Your task to perform on an android device: Do I have any events tomorrow? Image 0: 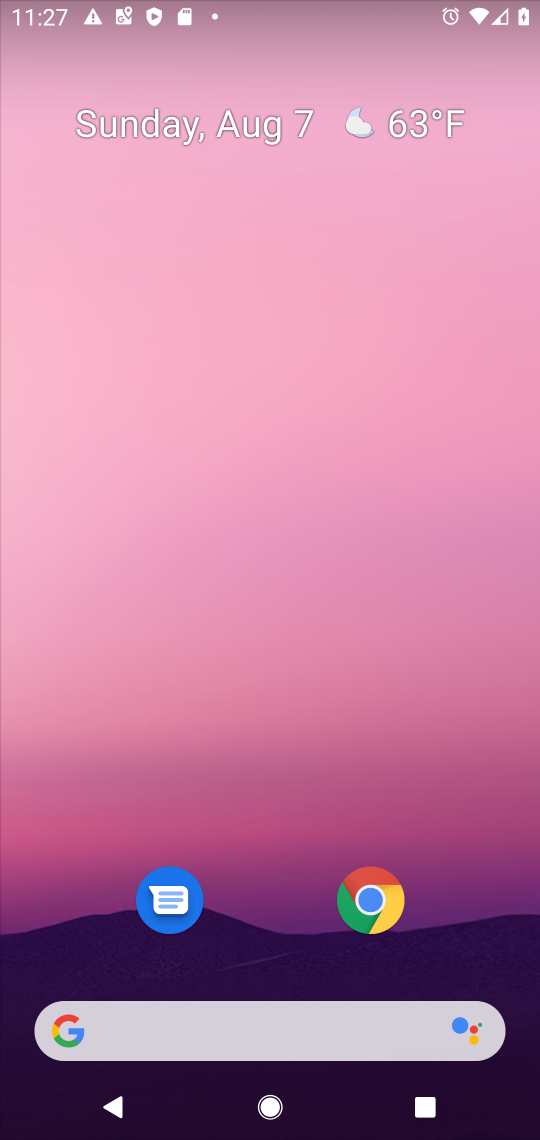
Step 0: press home button
Your task to perform on an android device: Do I have any events tomorrow? Image 1: 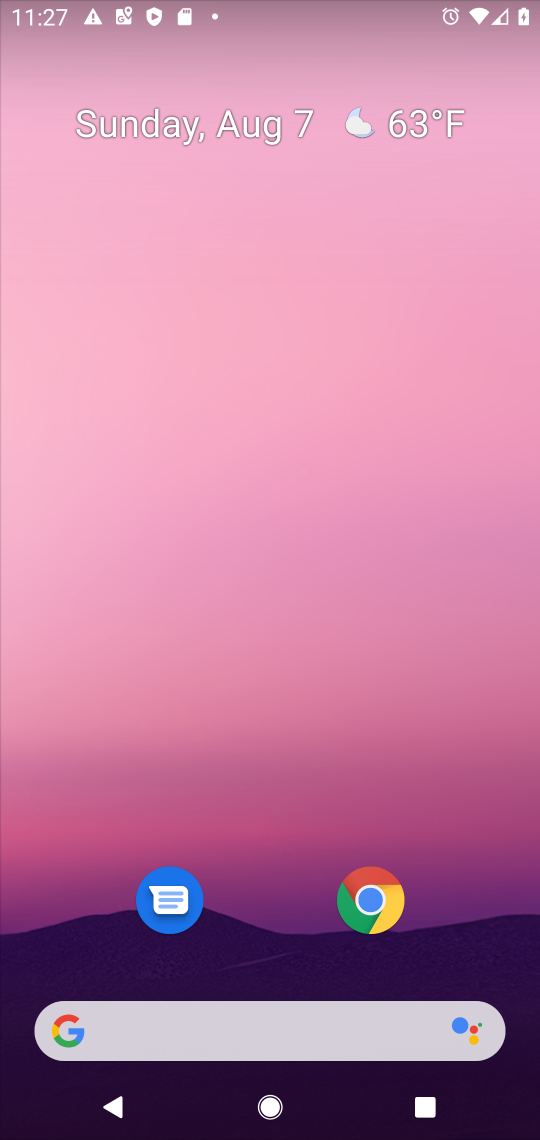
Step 1: drag from (270, 970) to (253, 268)
Your task to perform on an android device: Do I have any events tomorrow? Image 2: 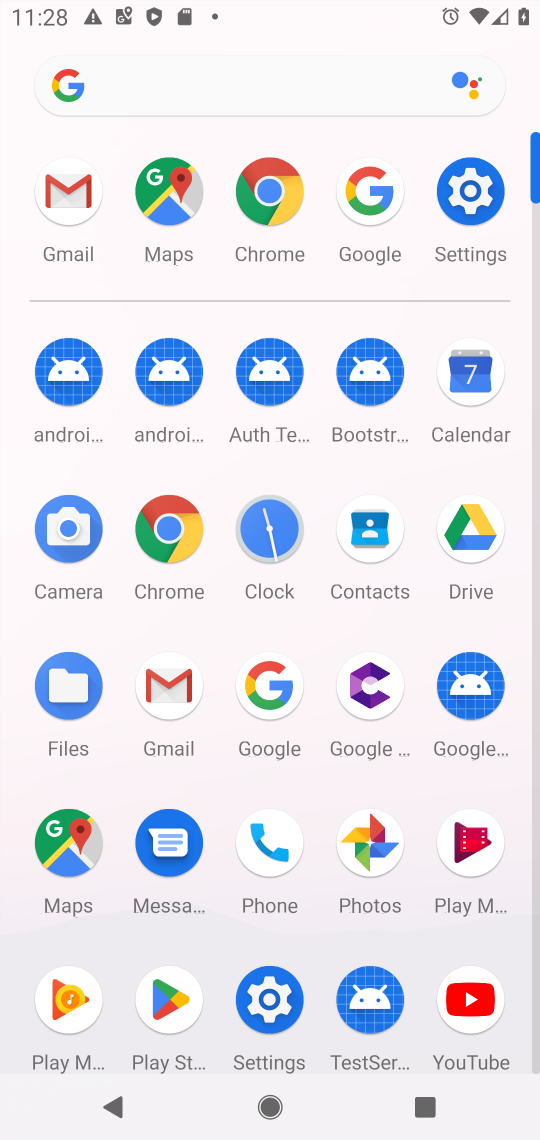
Step 2: click (469, 376)
Your task to perform on an android device: Do I have any events tomorrow? Image 3: 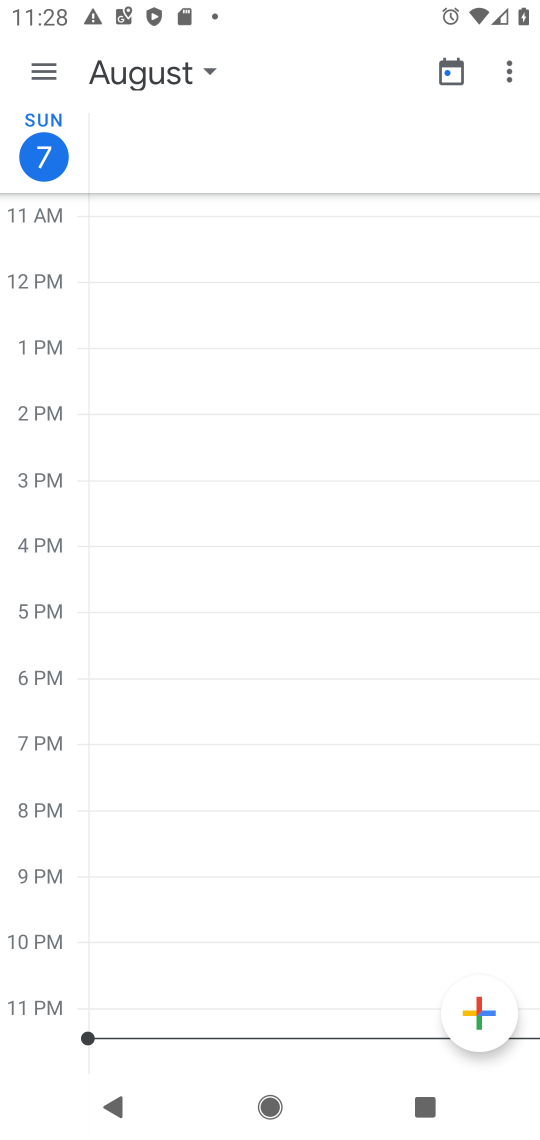
Step 3: click (206, 68)
Your task to perform on an android device: Do I have any events tomorrow? Image 4: 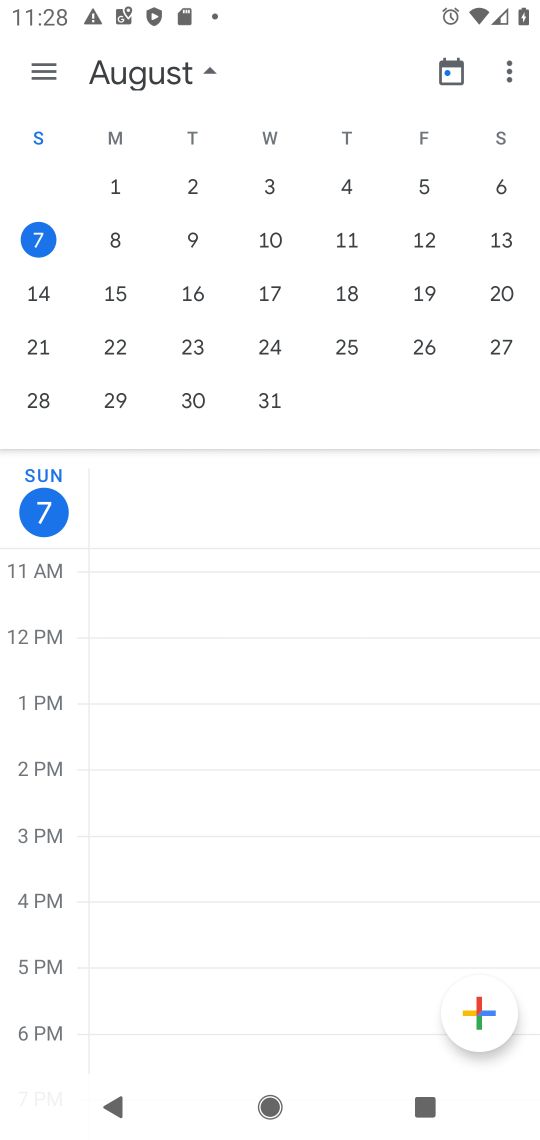
Step 4: click (108, 237)
Your task to perform on an android device: Do I have any events tomorrow? Image 5: 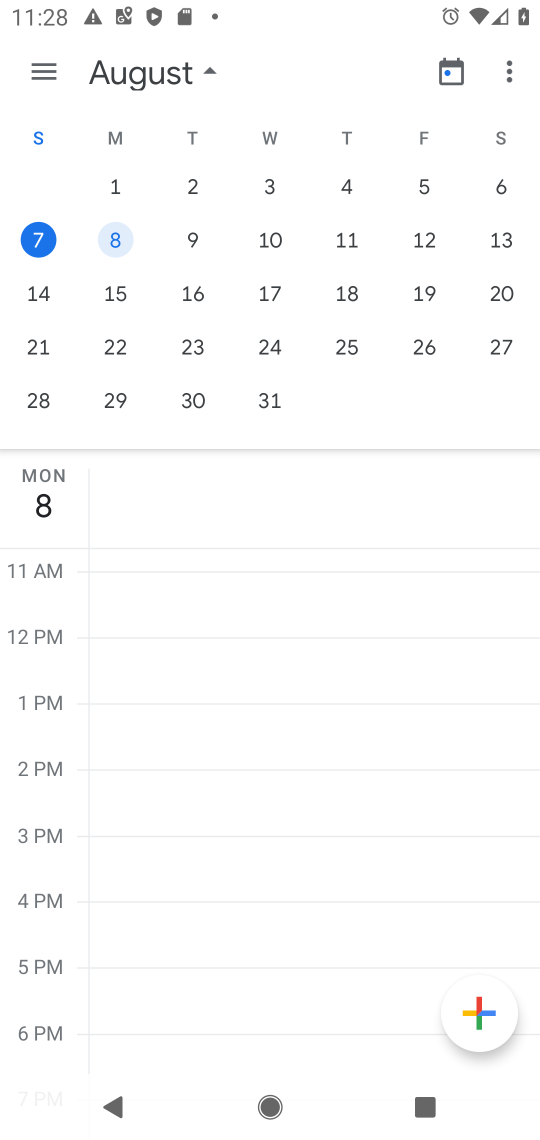
Step 5: click (62, 499)
Your task to perform on an android device: Do I have any events tomorrow? Image 6: 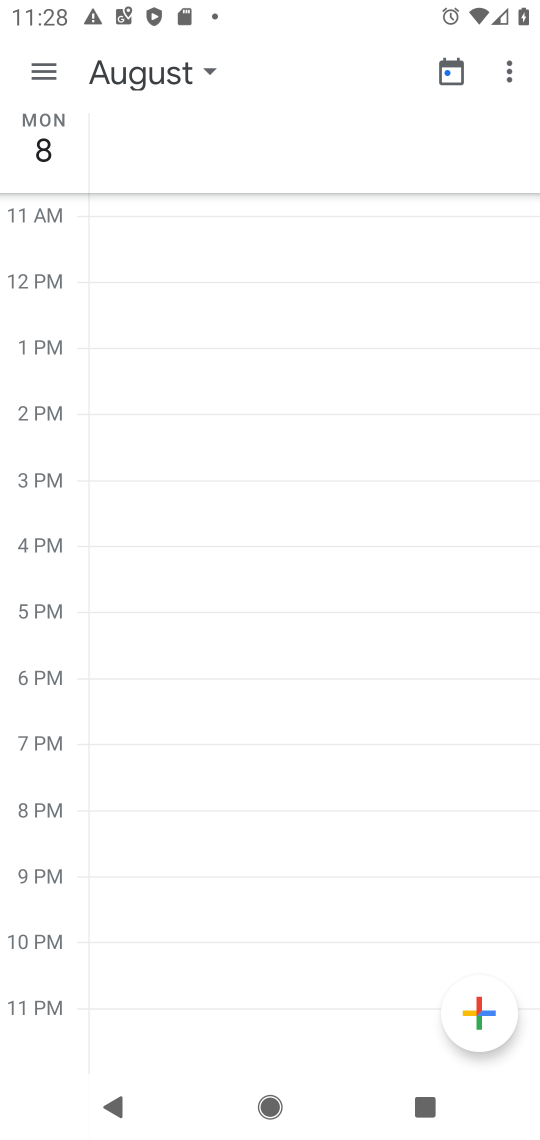
Step 6: click (46, 68)
Your task to perform on an android device: Do I have any events tomorrow? Image 7: 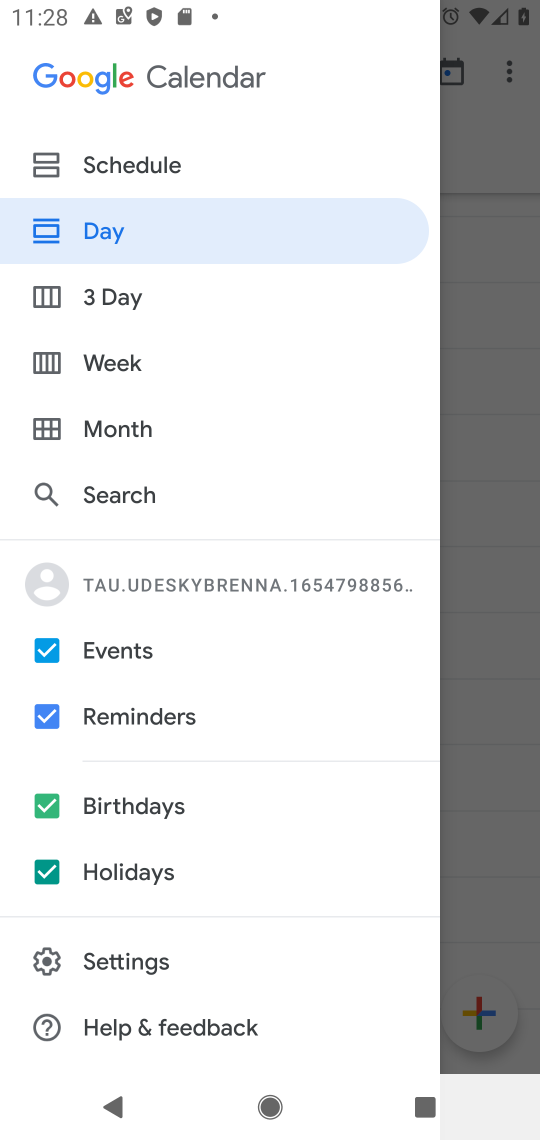
Step 7: click (46, 870)
Your task to perform on an android device: Do I have any events tomorrow? Image 8: 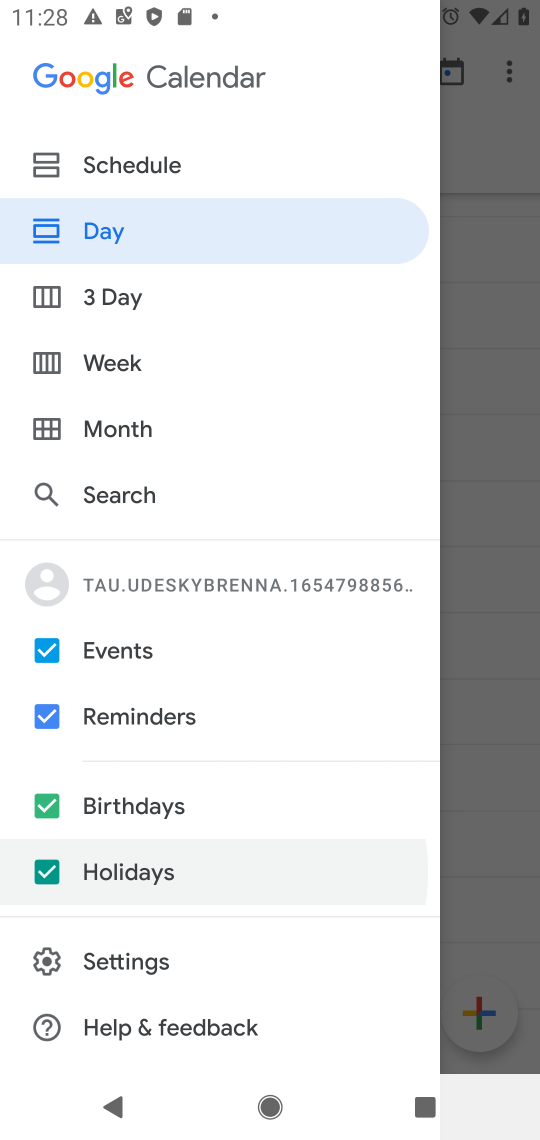
Step 8: click (43, 802)
Your task to perform on an android device: Do I have any events tomorrow? Image 9: 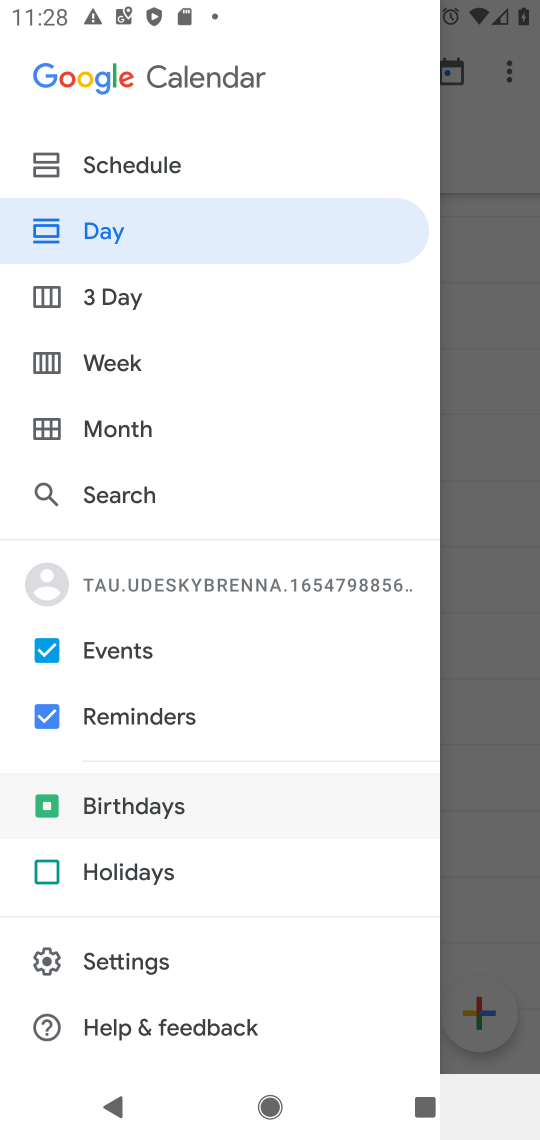
Step 9: click (60, 700)
Your task to perform on an android device: Do I have any events tomorrow? Image 10: 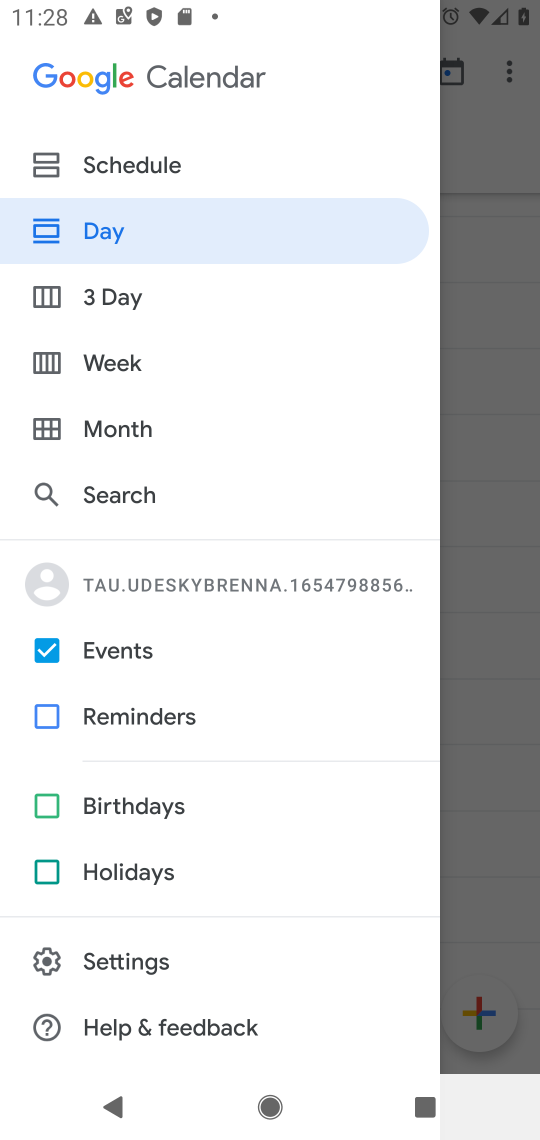
Step 10: click (128, 163)
Your task to perform on an android device: Do I have any events tomorrow? Image 11: 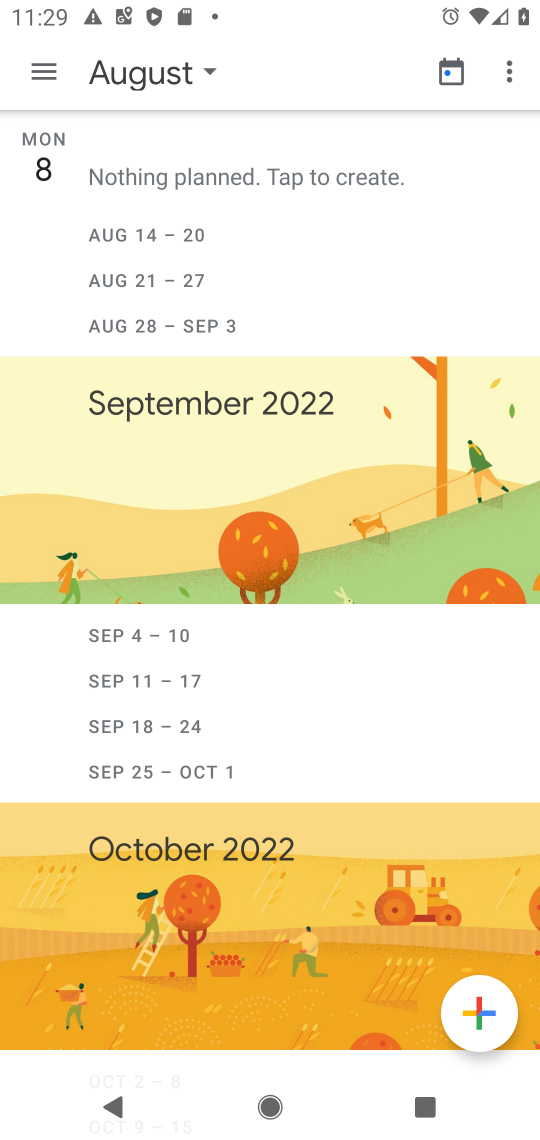
Step 11: click (58, 149)
Your task to perform on an android device: Do I have any events tomorrow? Image 12: 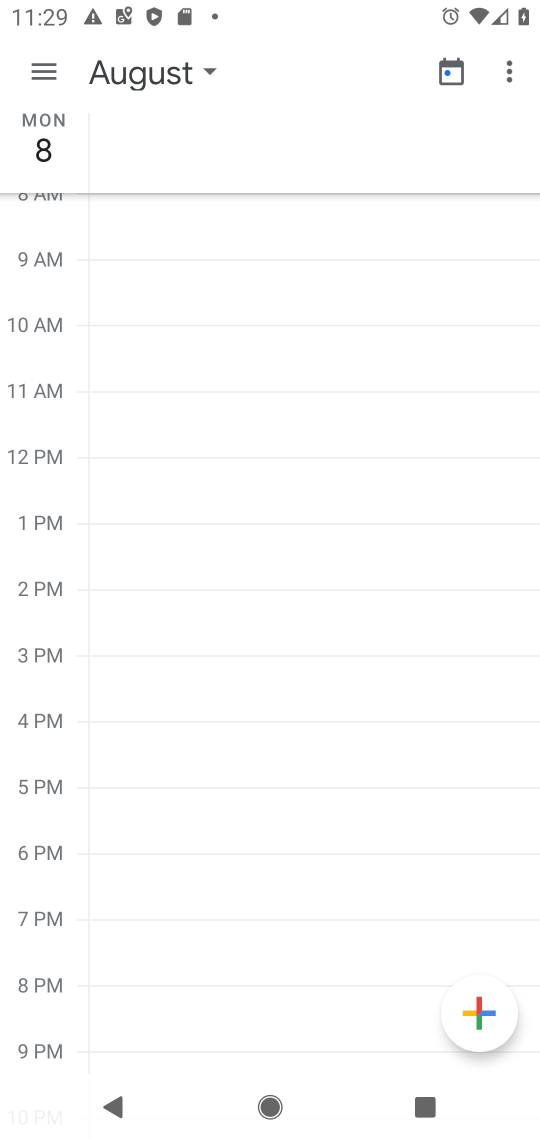
Step 12: task complete